Your task to perform on an android device: turn on the 12-hour format for clock Image 0: 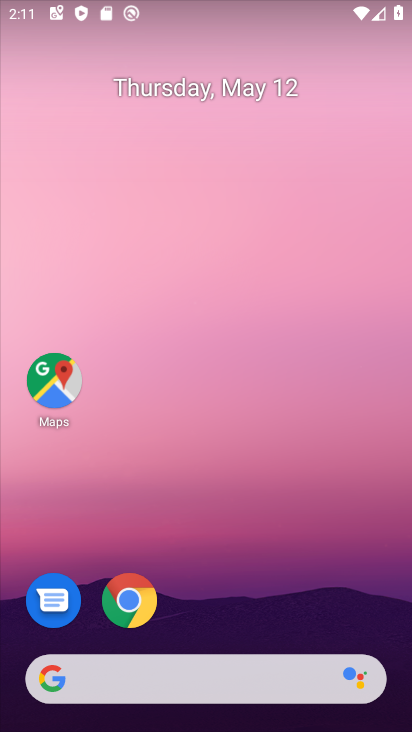
Step 0: drag from (245, 631) to (216, 62)
Your task to perform on an android device: turn on the 12-hour format for clock Image 1: 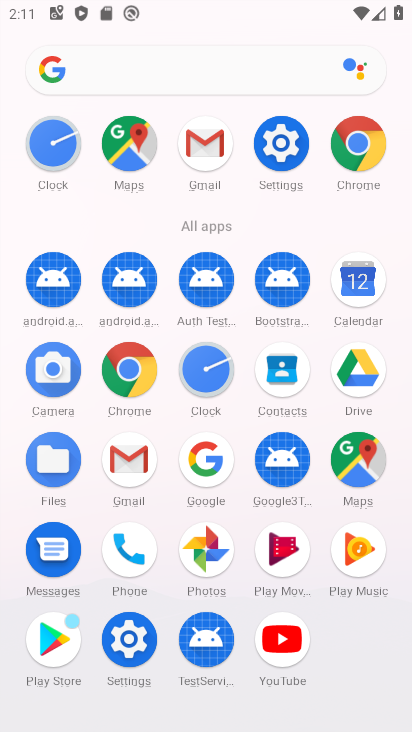
Step 1: click (143, 641)
Your task to perform on an android device: turn on the 12-hour format for clock Image 2: 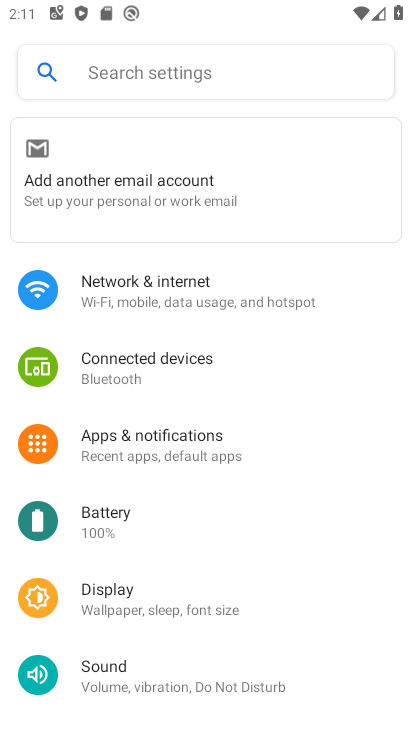
Step 2: drag from (195, 652) to (277, 188)
Your task to perform on an android device: turn on the 12-hour format for clock Image 3: 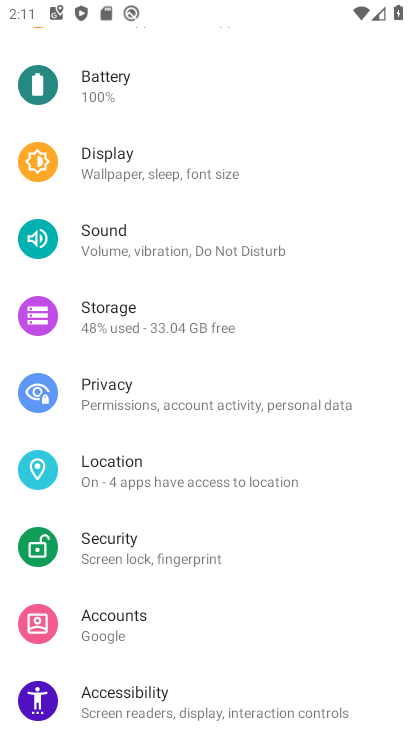
Step 3: drag from (143, 618) to (183, 162)
Your task to perform on an android device: turn on the 12-hour format for clock Image 4: 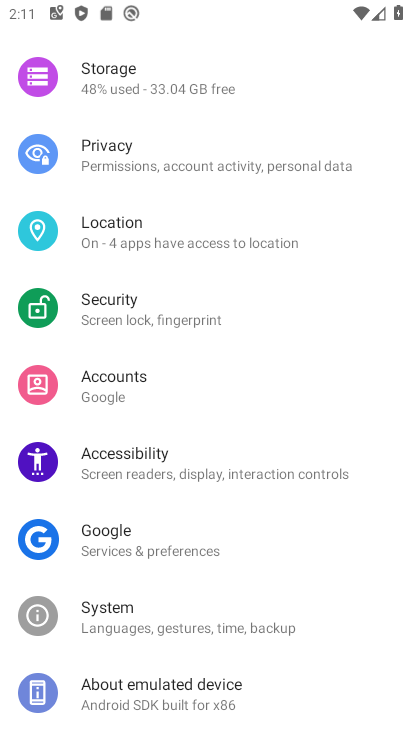
Step 4: click (128, 623)
Your task to perform on an android device: turn on the 12-hour format for clock Image 5: 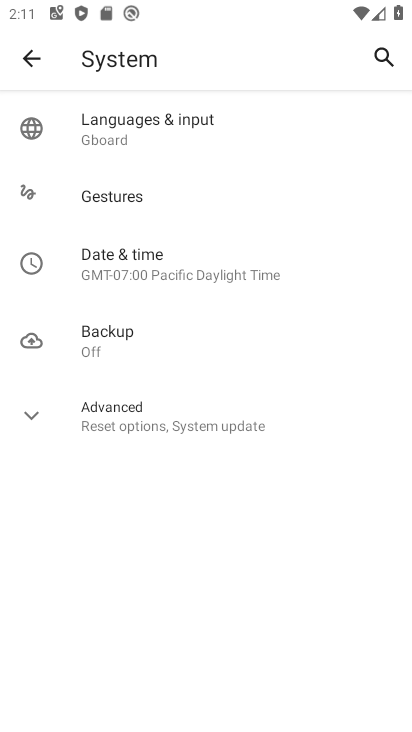
Step 5: click (164, 271)
Your task to perform on an android device: turn on the 12-hour format for clock Image 6: 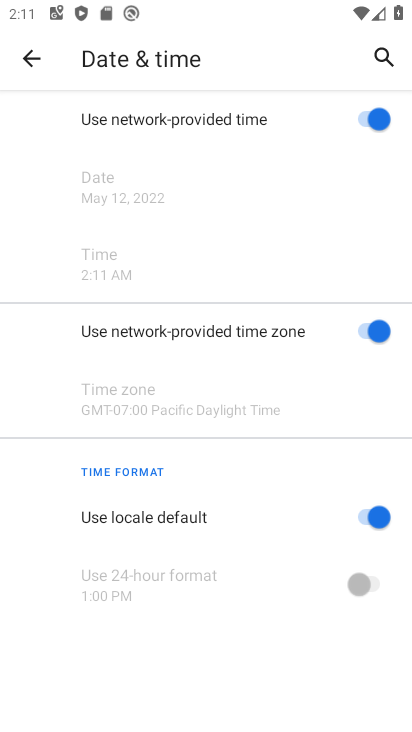
Step 6: task complete